Your task to perform on an android device: turn off notifications in google photos Image 0: 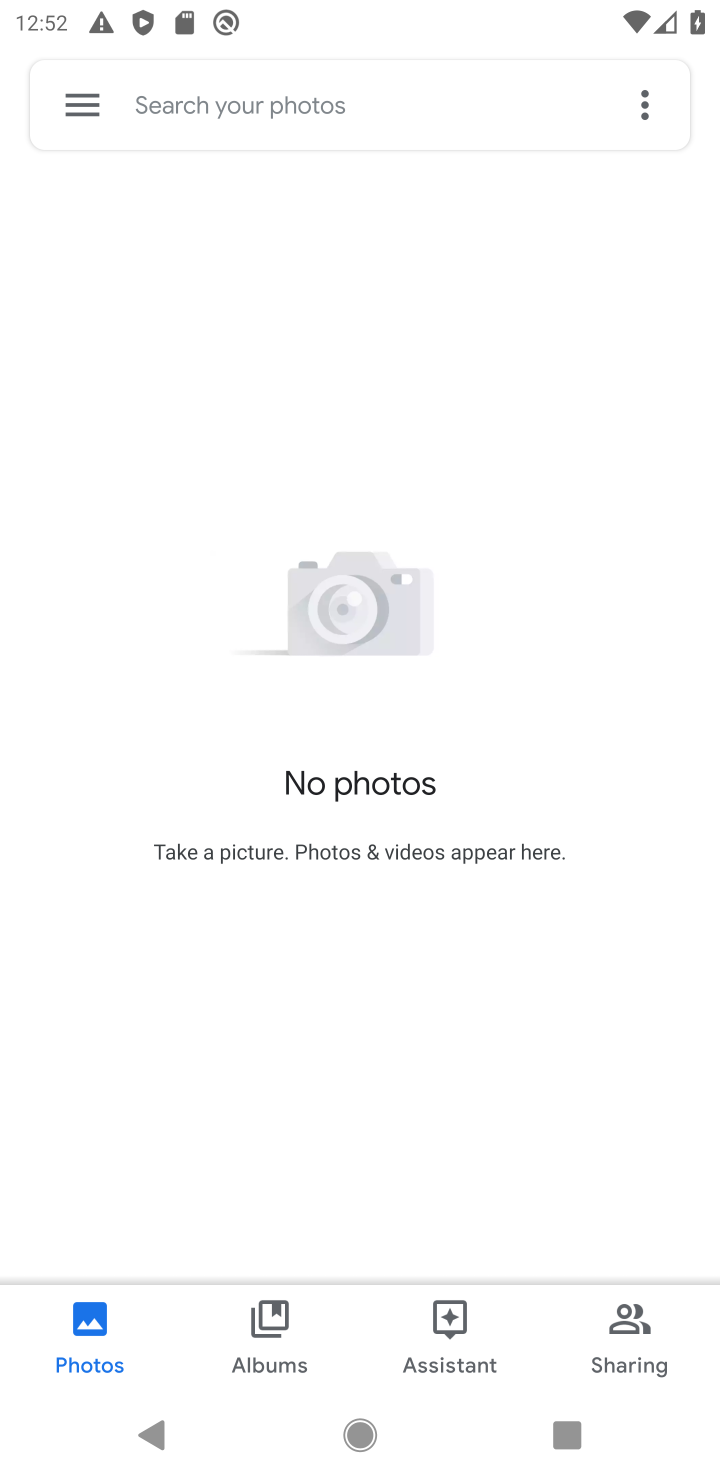
Step 0: press home button
Your task to perform on an android device: turn off notifications in google photos Image 1: 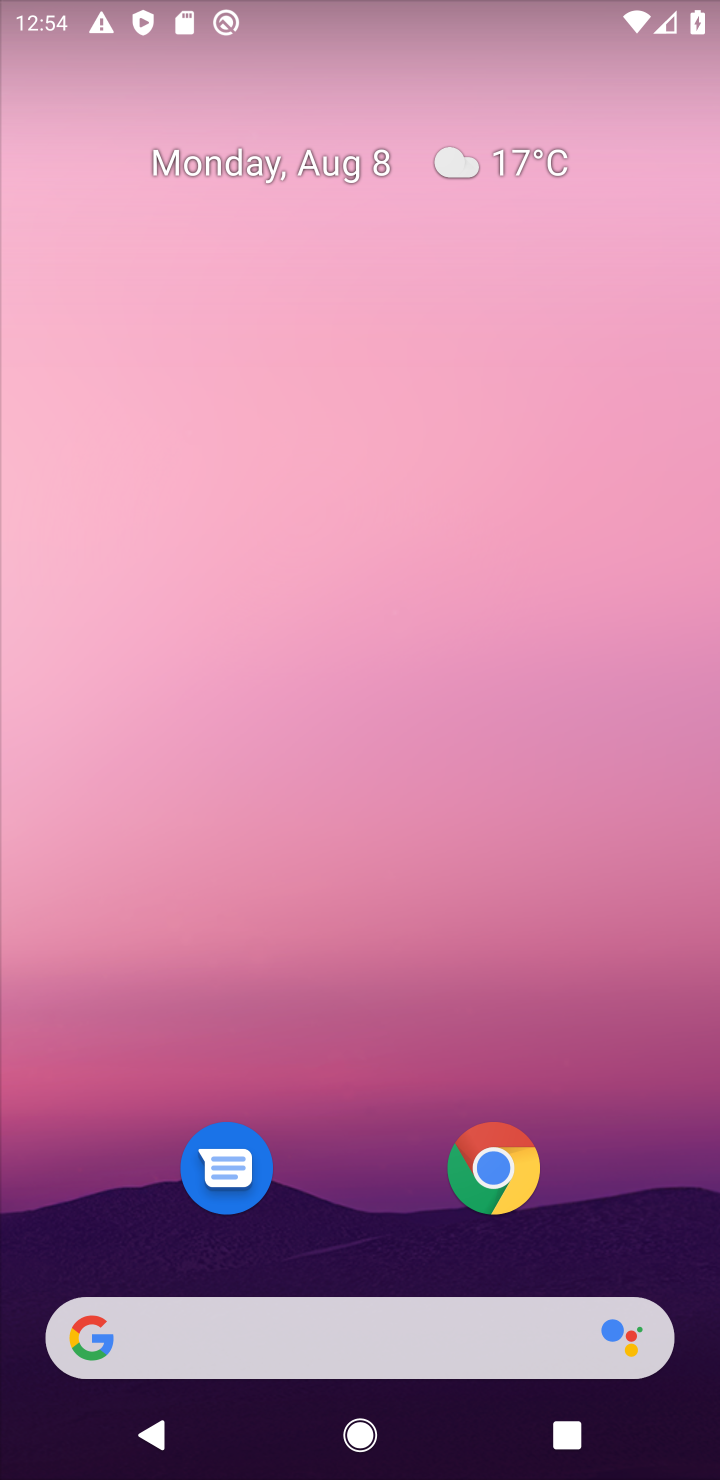
Step 1: task complete